Your task to perform on an android device: turn off airplane mode Image 0: 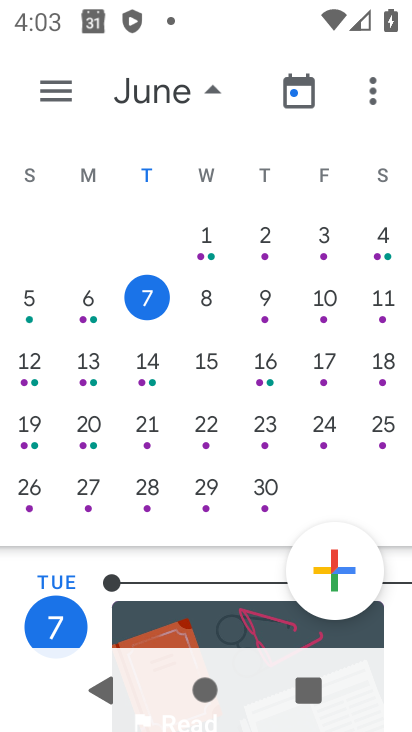
Step 0: press home button
Your task to perform on an android device: turn off airplane mode Image 1: 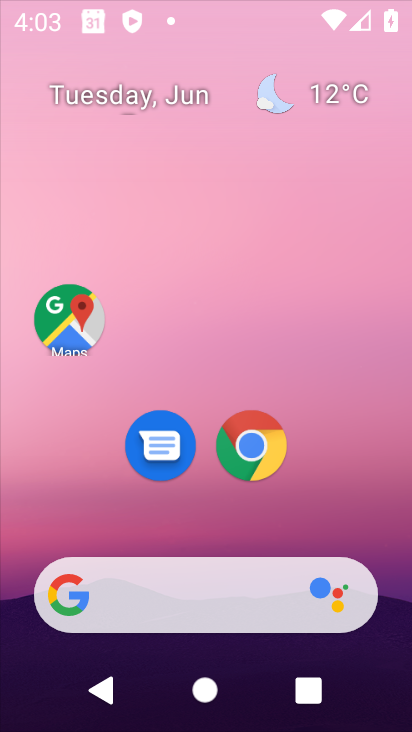
Step 1: drag from (327, 475) to (368, 12)
Your task to perform on an android device: turn off airplane mode Image 2: 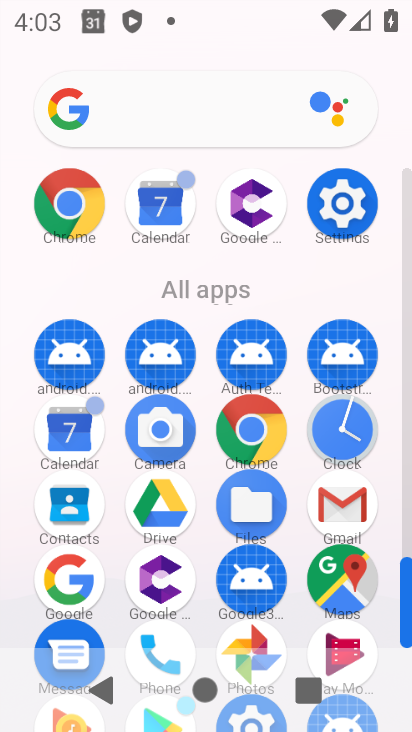
Step 2: click (353, 198)
Your task to perform on an android device: turn off airplane mode Image 3: 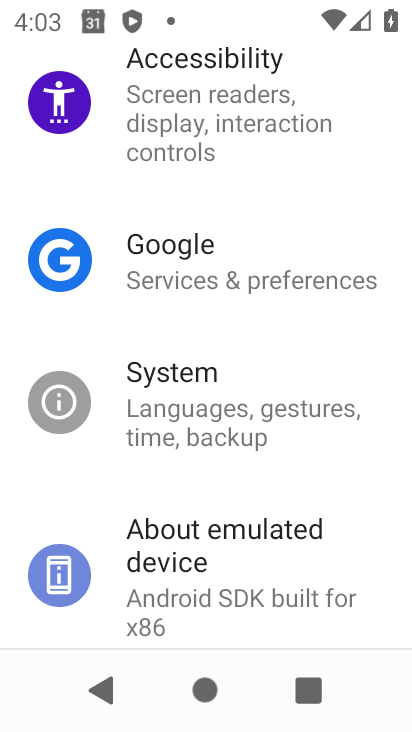
Step 3: drag from (224, 175) to (165, 713)
Your task to perform on an android device: turn off airplane mode Image 4: 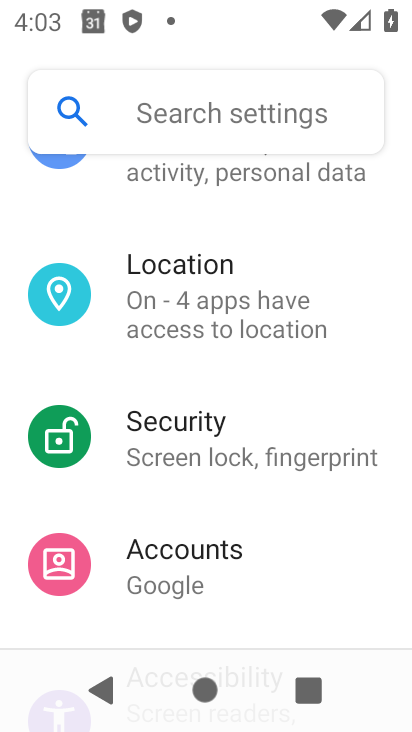
Step 4: drag from (216, 236) to (206, 670)
Your task to perform on an android device: turn off airplane mode Image 5: 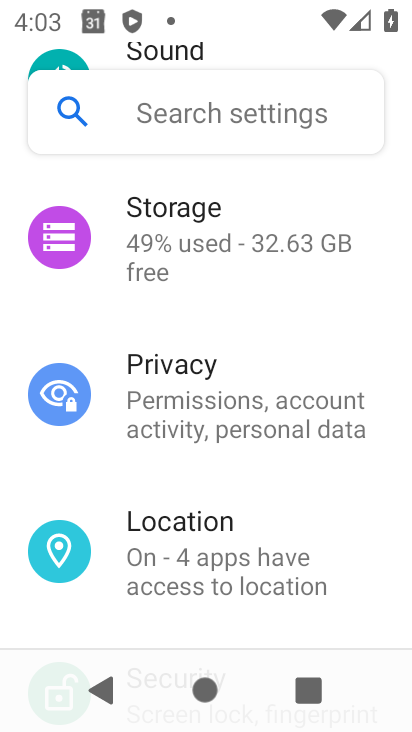
Step 5: drag from (252, 203) to (212, 691)
Your task to perform on an android device: turn off airplane mode Image 6: 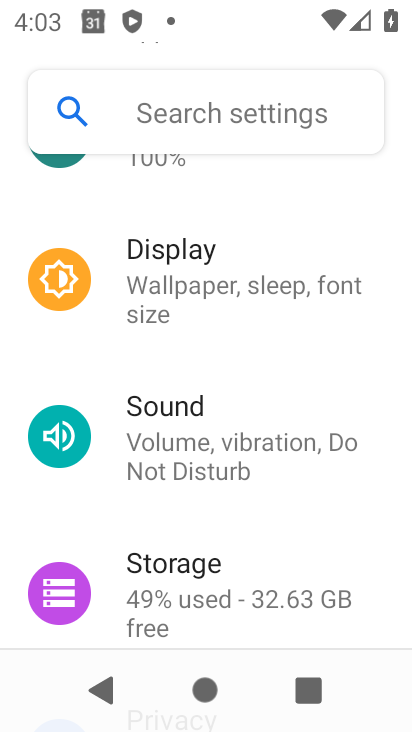
Step 6: drag from (257, 186) to (242, 688)
Your task to perform on an android device: turn off airplane mode Image 7: 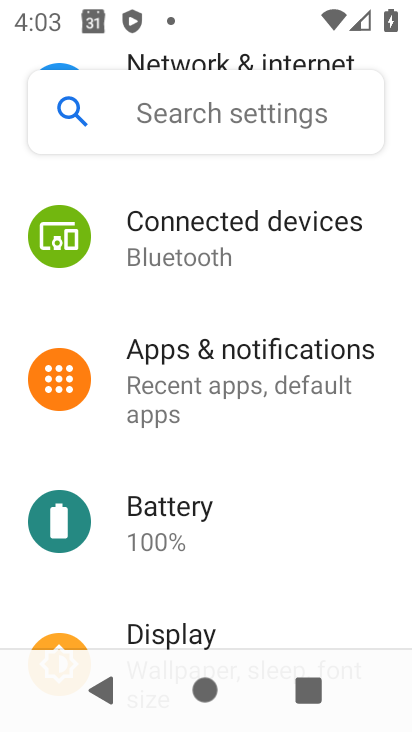
Step 7: drag from (279, 275) to (296, 728)
Your task to perform on an android device: turn off airplane mode Image 8: 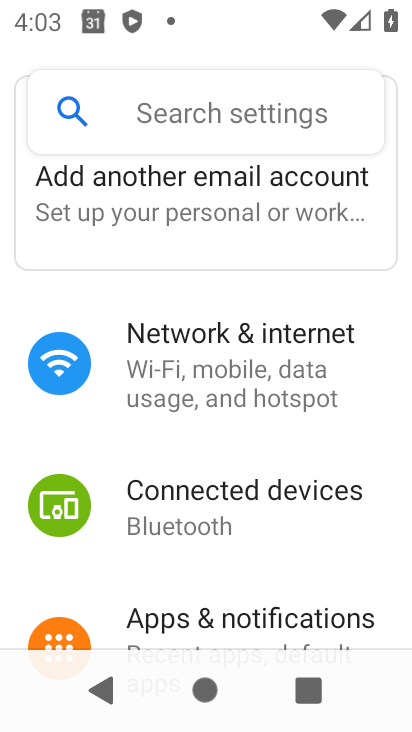
Step 8: click (212, 360)
Your task to perform on an android device: turn off airplane mode Image 9: 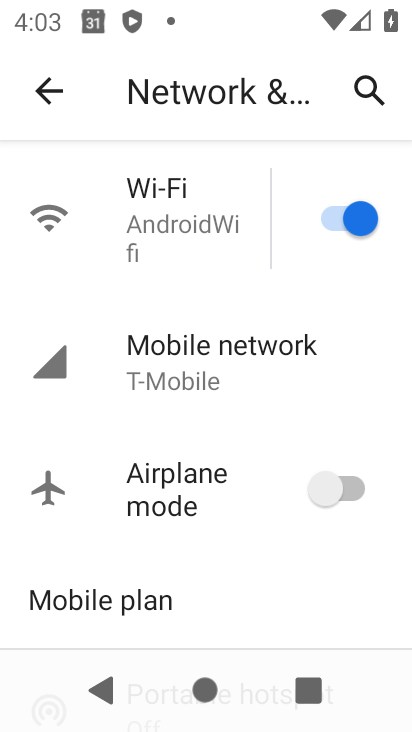
Step 9: task complete